Your task to perform on an android device: Clear the shopping cart on amazon.com. Add razer blade to the cart on amazon.com, then select checkout. Image 0: 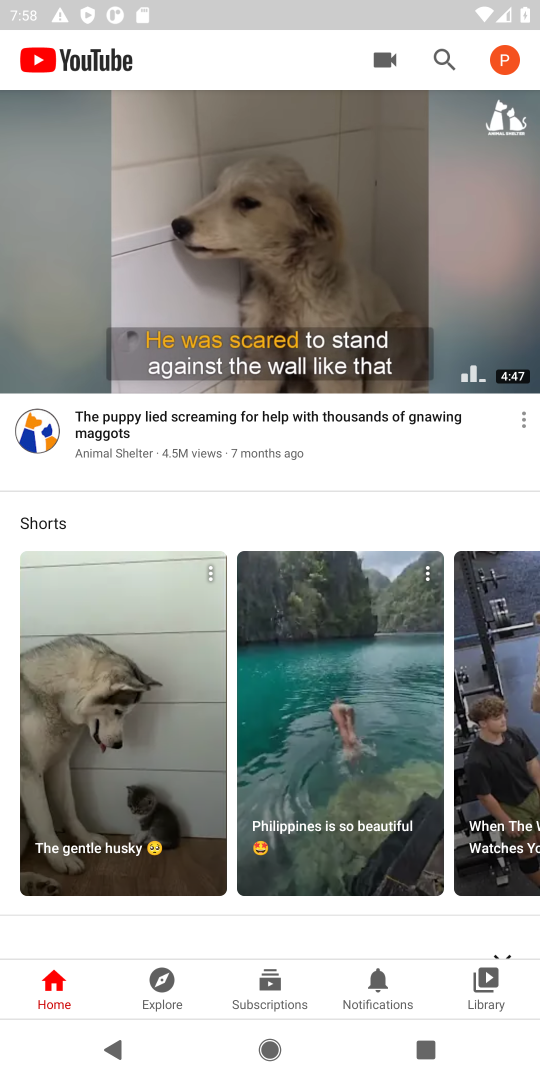
Step 0: press home button
Your task to perform on an android device: Clear the shopping cart on amazon.com. Add razer blade to the cart on amazon.com, then select checkout. Image 1: 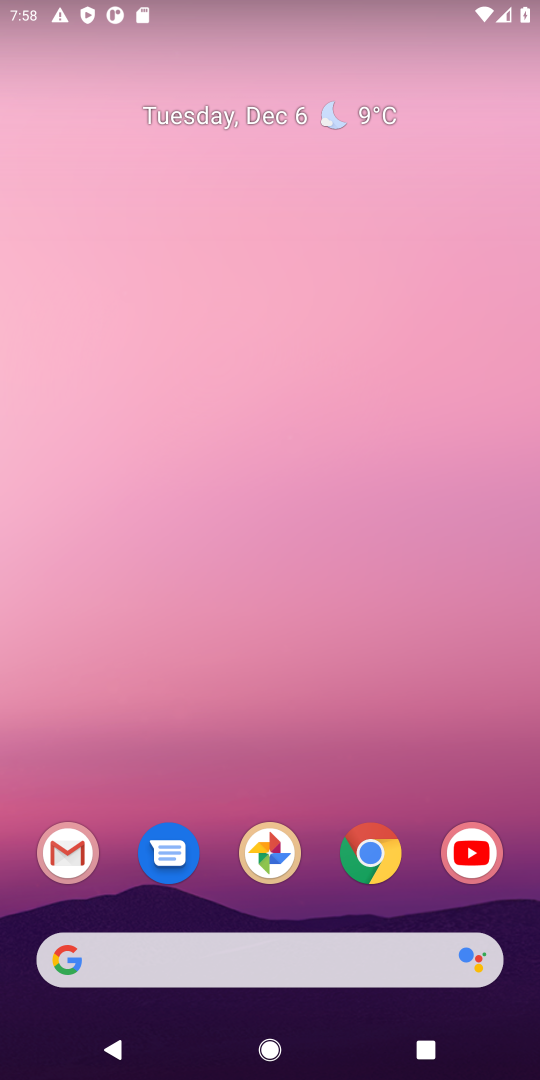
Step 1: click (362, 856)
Your task to perform on an android device: Clear the shopping cart on amazon.com. Add razer blade to the cart on amazon.com, then select checkout. Image 2: 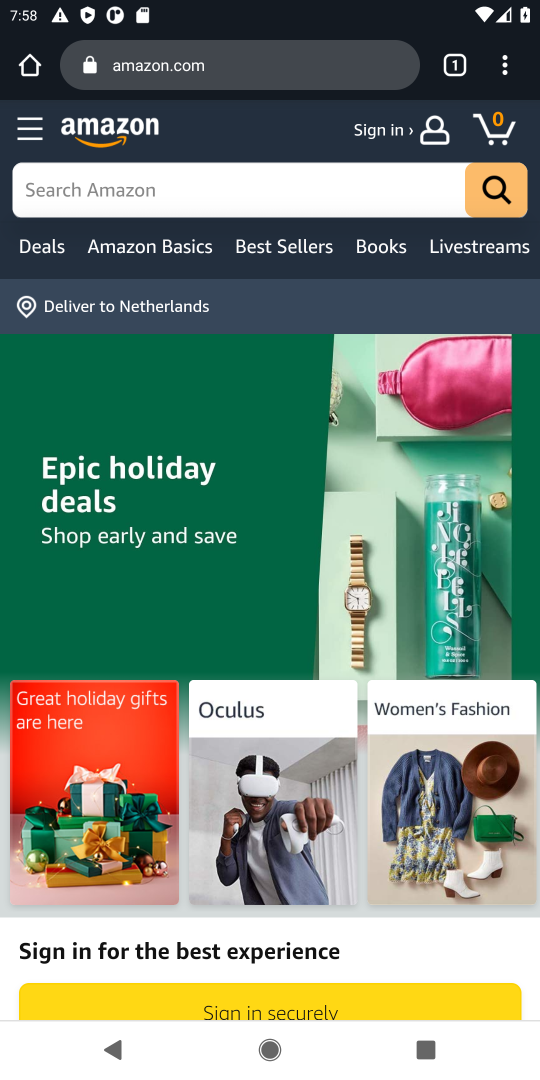
Step 2: click (311, 190)
Your task to perform on an android device: Clear the shopping cart on amazon.com. Add razer blade to the cart on amazon.com, then select checkout. Image 3: 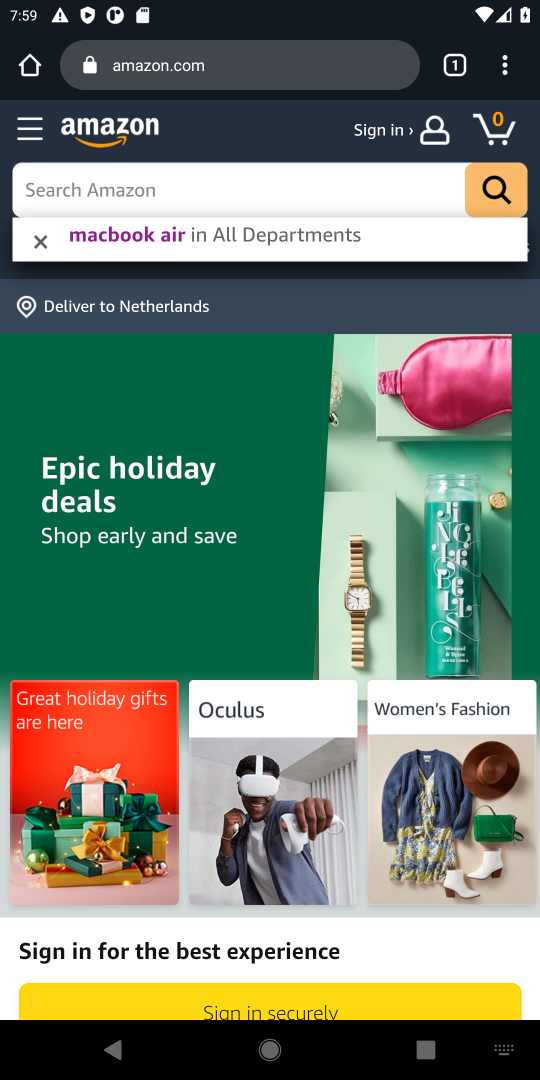
Step 3: type "razer blade"
Your task to perform on an android device: Clear the shopping cart on amazon.com. Add razer blade to the cart on amazon.com, then select checkout. Image 4: 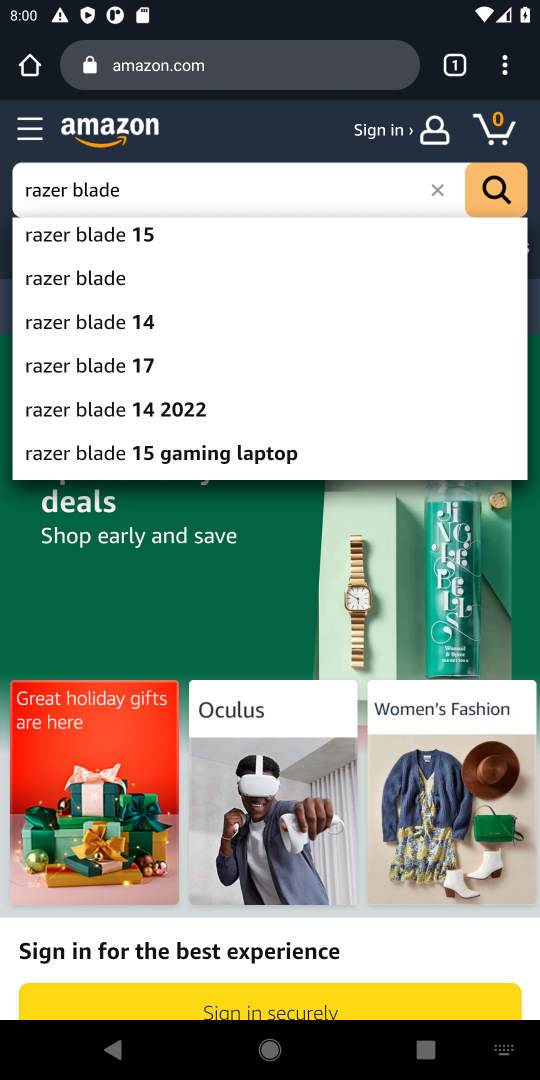
Step 4: click (165, 234)
Your task to perform on an android device: Clear the shopping cart on amazon.com. Add razer blade to the cart on amazon.com, then select checkout. Image 5: 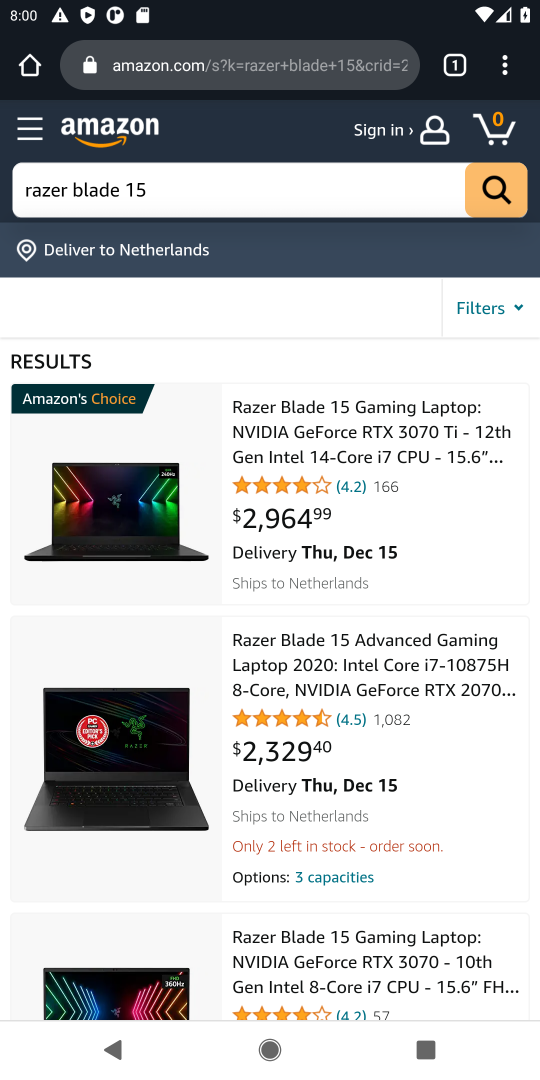
Step 5: click (162, 517)
Your task to perform on an android device: Clear the shopping cart on amazon.com. Add razer blade to the cart on amazon.com, then select checkout. Image 6: 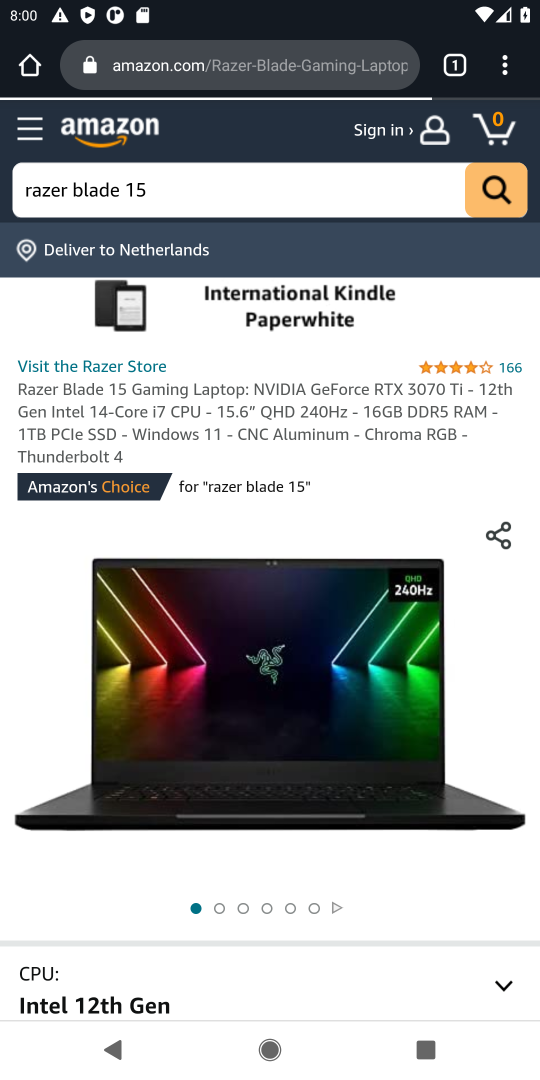
Step 6: drag from (395, 921) to (360, 320)
Your task to perform on an android device: Clear the shopping cart on amazon.com. Add razer blade to the cart on amazon.com, then select checkout. Image 7: 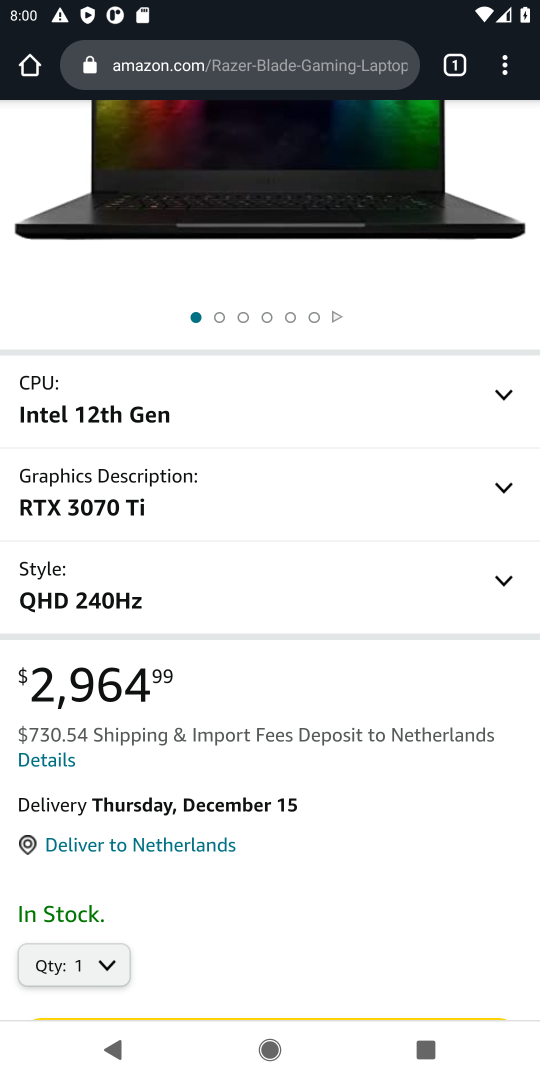
Step 7: drag from (416, 930) to (361, 326)
Your task to perform on an android device: Clear the shopping cart on amazon.com. Add razer blade to the cart on amazon.com, then select checkout. Image 8: 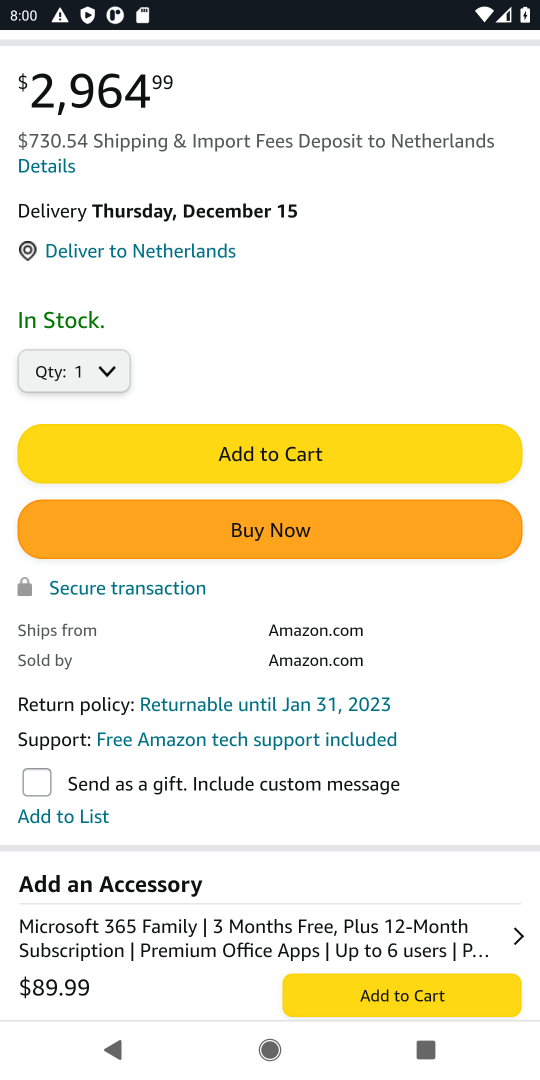
Step 8: click (280, 443)
Your task to perform on an android device: Clear the shopping cart on amazon.com. Add razer blade to the cart on amazon.com, then select checkout. Image 9: 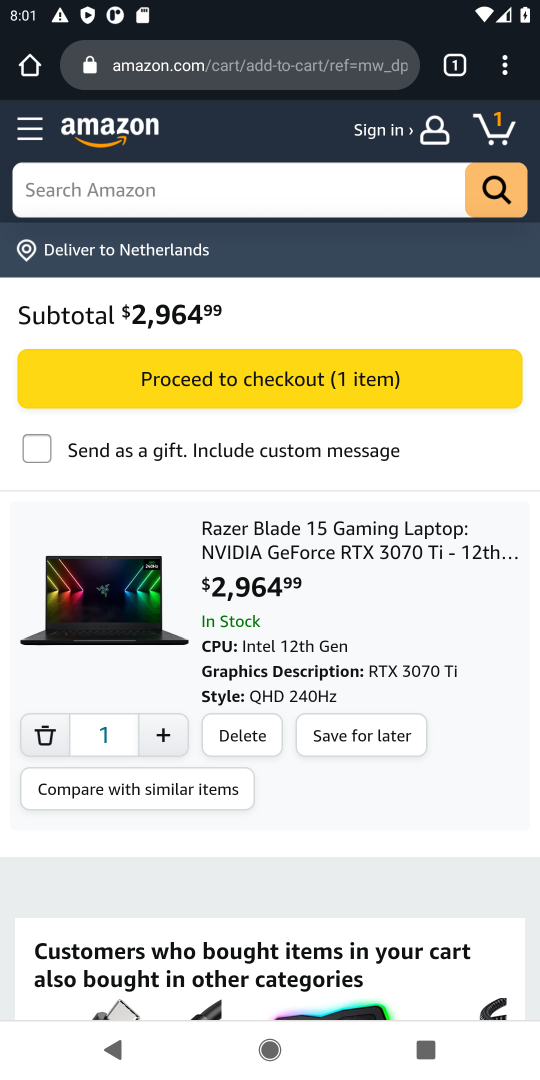
Step 9: click (323, 385)
Your task to perform on an android device: Clear the shopping cart on amazon.com. Add razer blade to the cart on amazon.com, then select checkout. Image 10: 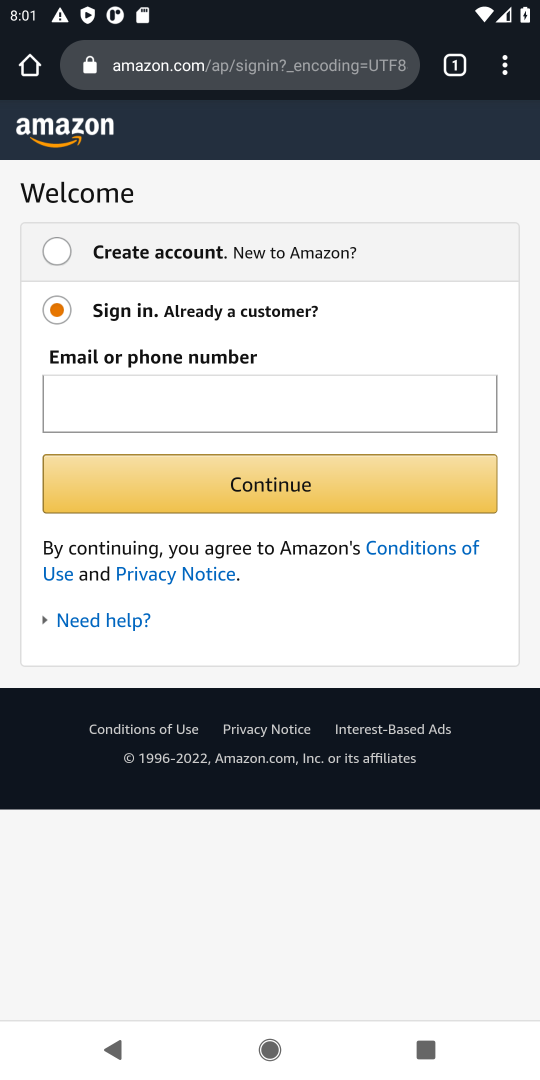
Step 10: task complete